Your task to perform on an android device: Go to accessibility settings Image 0: 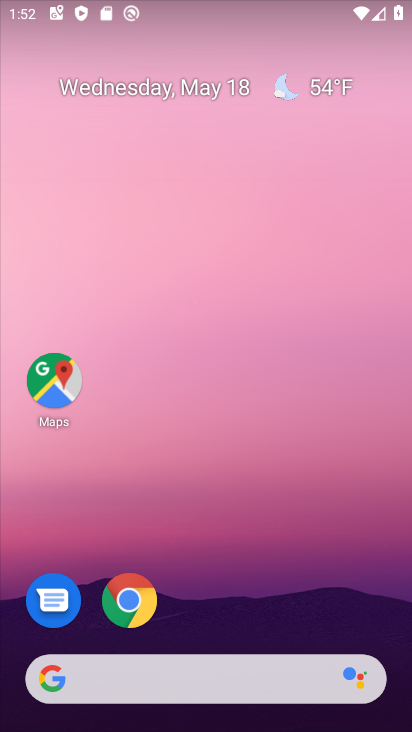
Step 0: drag from (173, 626) to (170, 328)
Your task to perform on an android device: Go to accessibility settings Image 1: 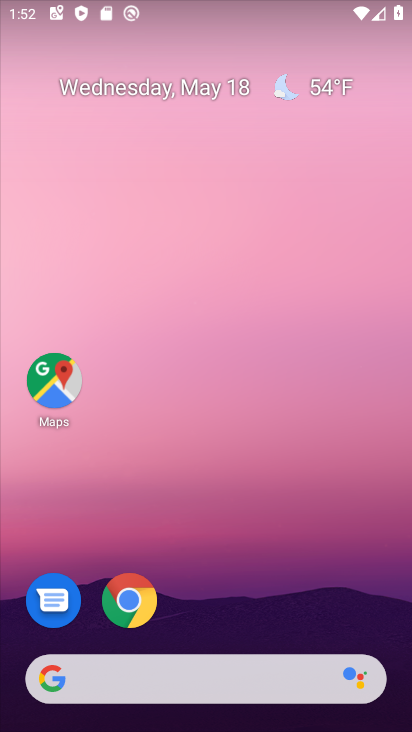
Step 1: drag from (242, 616) to (172, 217)
Your task to perform on an android device: Go to accessibility settings Image 2: 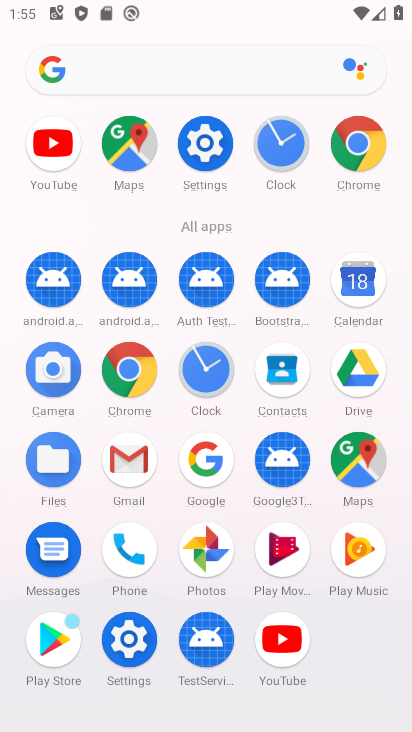
Step 2: click (196, 151)
Your task to perform on an android device: Go to accessibility settings Image 3: 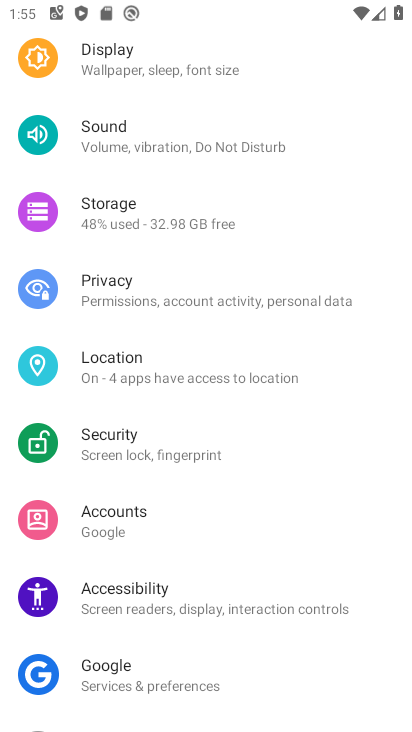
Step 3: click (164, 613)
Your task to perform on an android device: Go to accessibility settings Image 4: 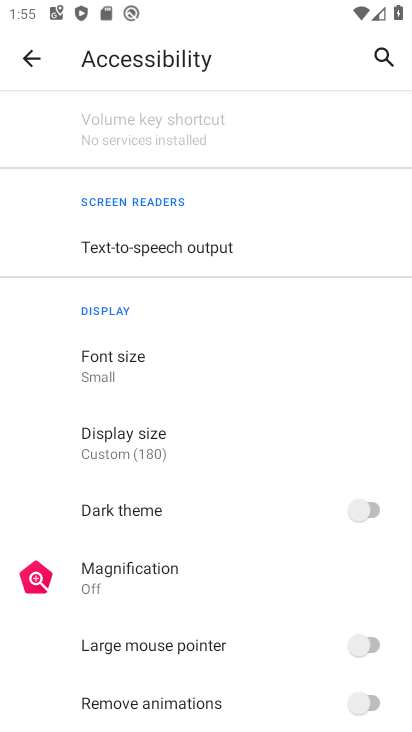
Step 4: task complete